Your task to perform on an android device: Search for "jbl flip 4" on amazon, select the first entry, add it to the cart, then select checkout. Image 0: 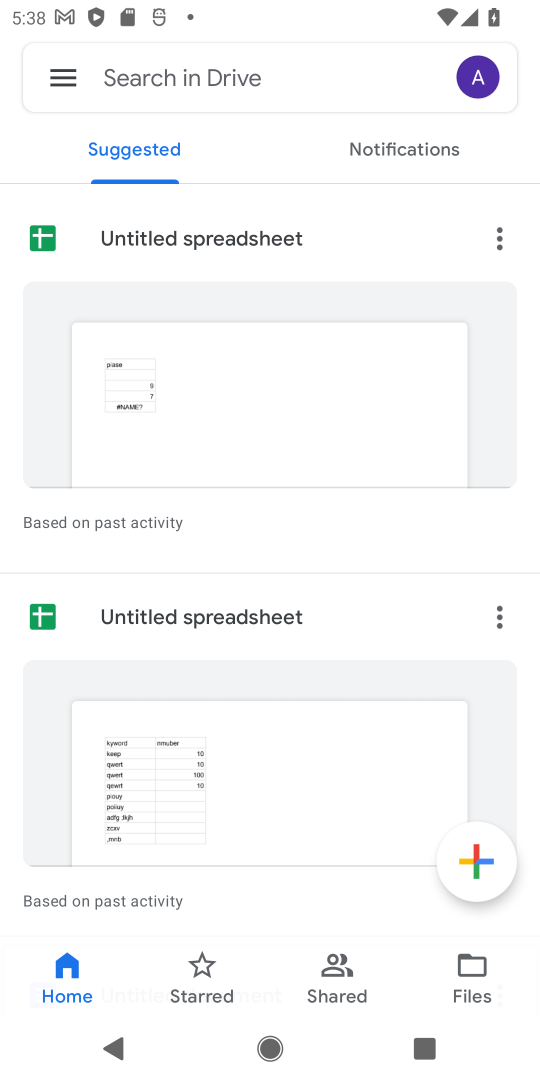
Step 0: press home button
Your task to perform on an android device: Search for "jbl flip 4" on amazon, select the first entry, add it to the cart, then select checkout. Image 1: 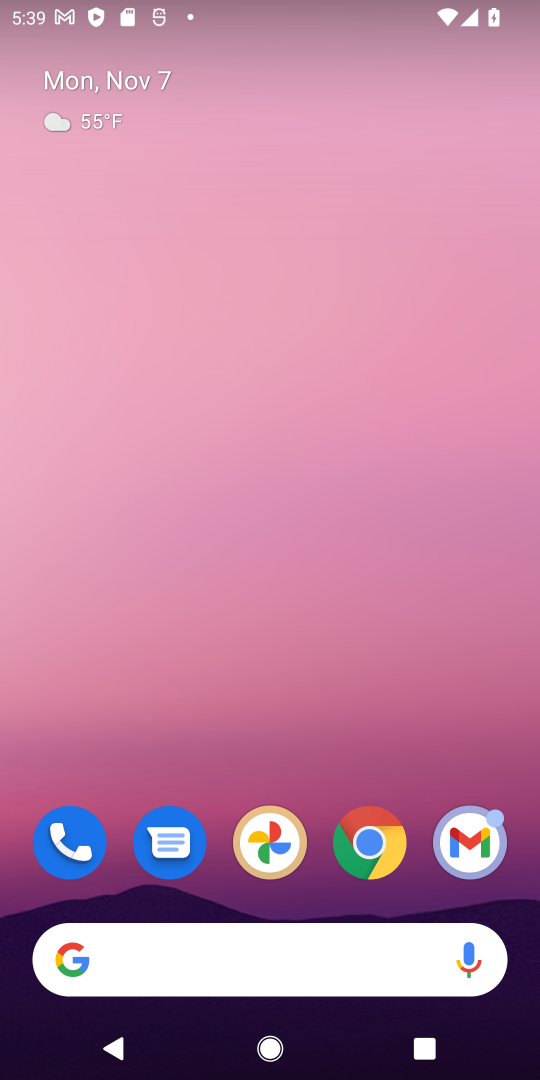
Step 1: click (367, 832)
Your task to perform on an android device: Search for "jbl flip 4" on amazon, select the first entry, add it to the cart, then select checkout. Image 2: 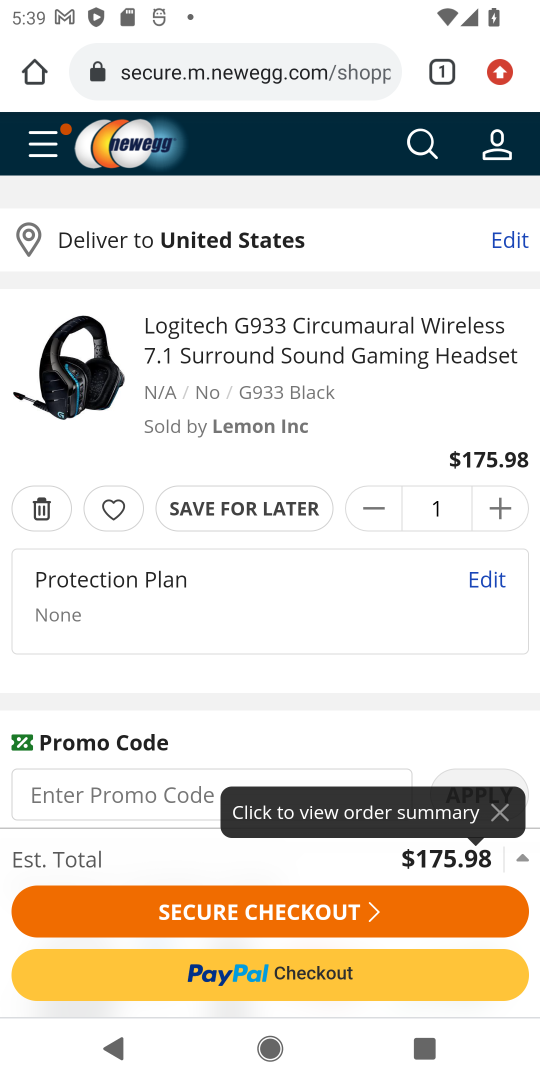
Step 2: click (267, 66)
Your task to perform on an android device: Search for "jbl flip 4" on amazon, select the first entry, add it to the cart, then select checkout. Image 3: 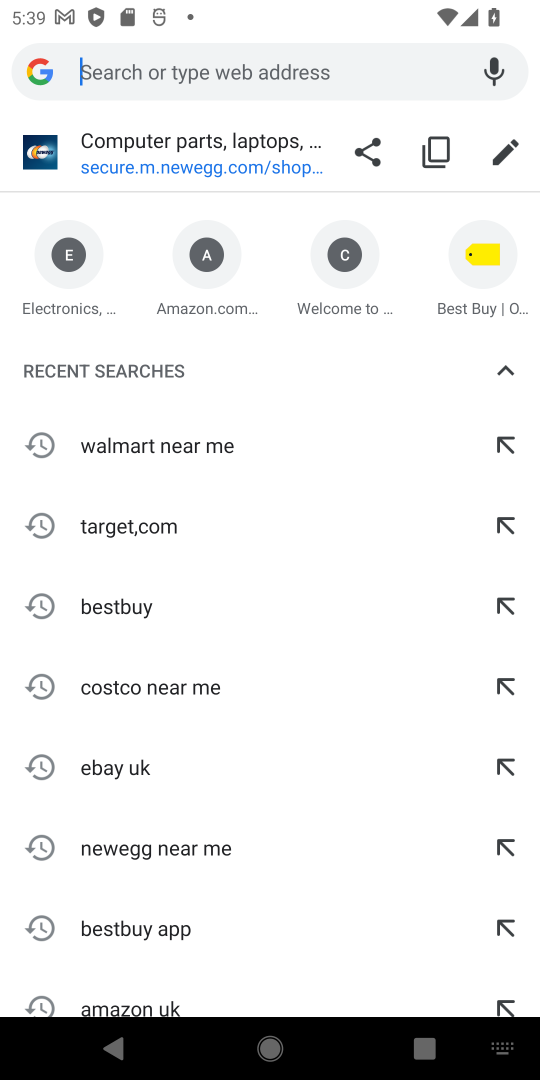
Step 3: click (182, 302)
Your task to perform on an android device: Search for "jbl flip 4" on amazon, select the first entry, add it to the cart, then select checkout. Image 4: 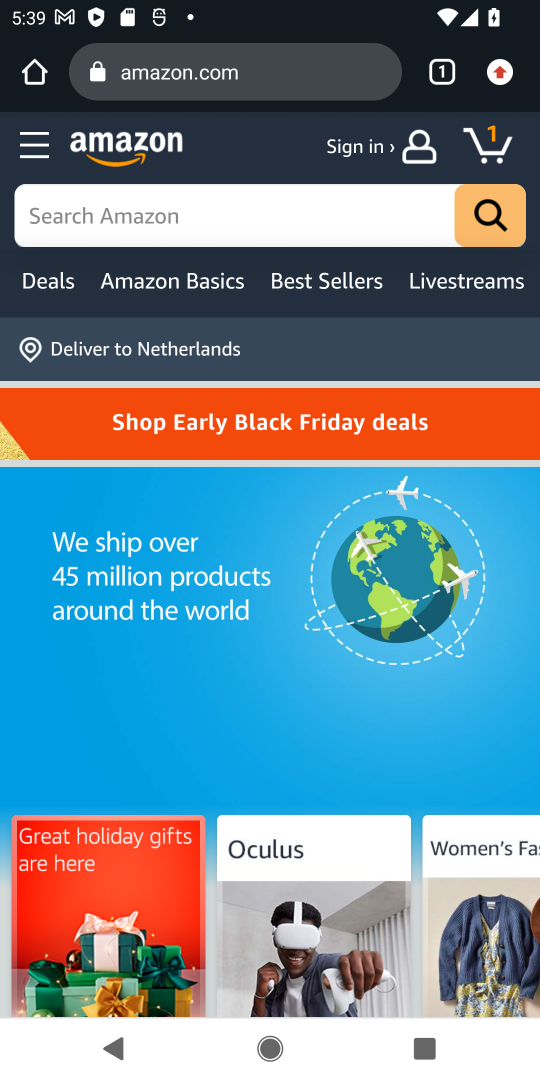
Step 4: click (241, 229)
Your task to perform on an android device: Search for "jbl flip 4" on amazon, select the first entry, add it to the cart, then select checkout. Image 5: 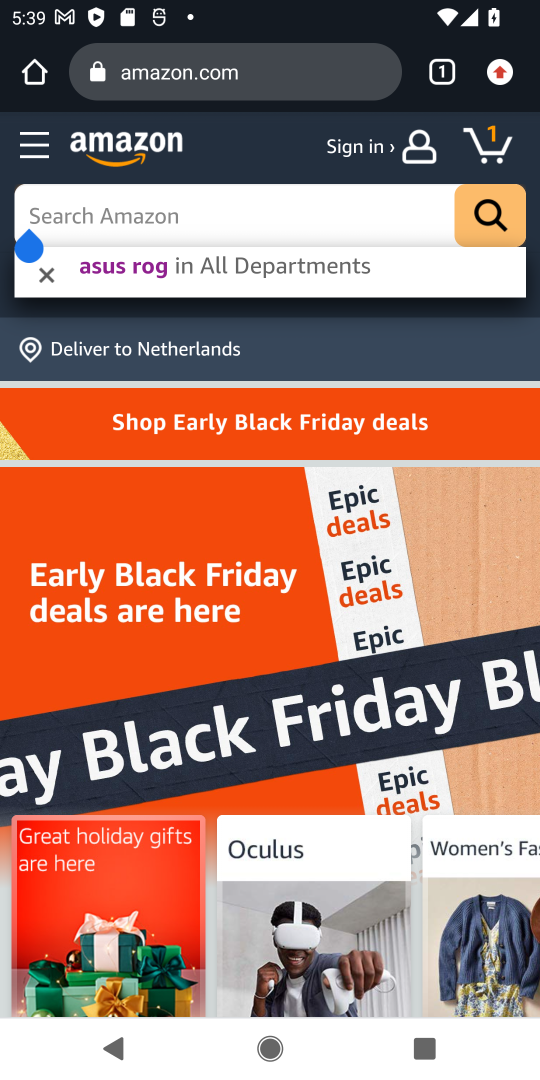
Step 5: type "jbl flip 4"
Your task to perform on an android device: Search for "jbl flip 4" on amazon, select the first entry, add it to the cart, then select checkout. Image 6: 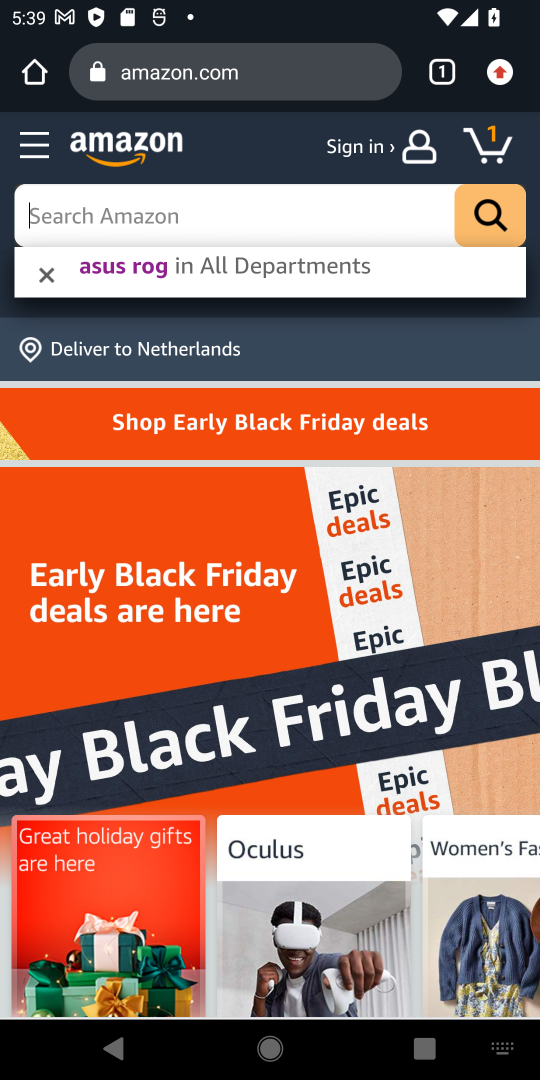
Step 6: press enter
Your task to perform on an android device: Search for "jbl flip 4" on amazon, select the first entry, add it to the cart, then select checkout. Image 7: 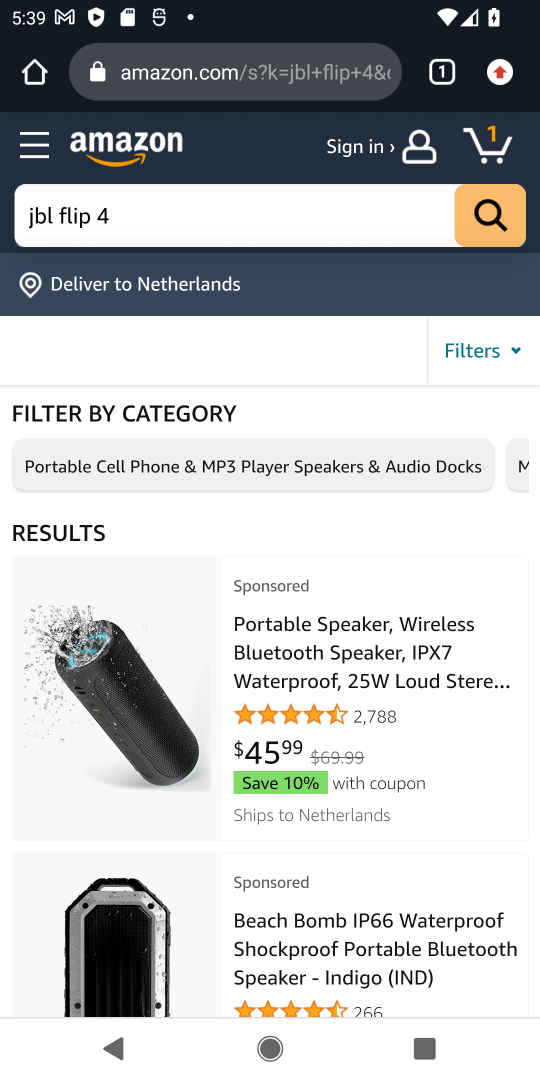
Step 7: click (395, 651)
Your task to perform on an android device: Search for "jbl flip 4" on amazon, select the first entry, add it to the cart, then select checkout. Image 8: 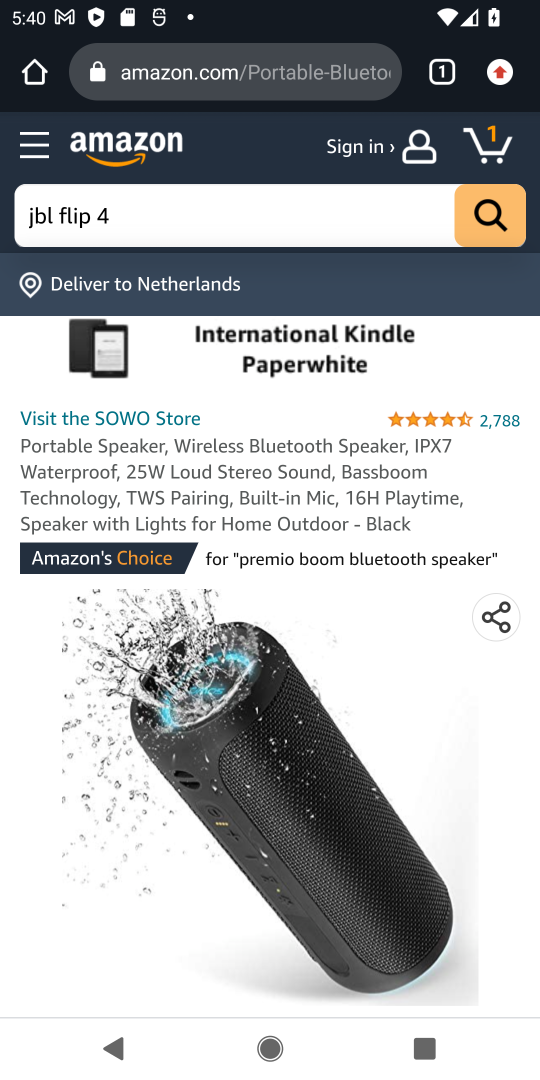
Step 8: task complete